Your task to perform on an android device: toggle improve location accuracy Image 0: 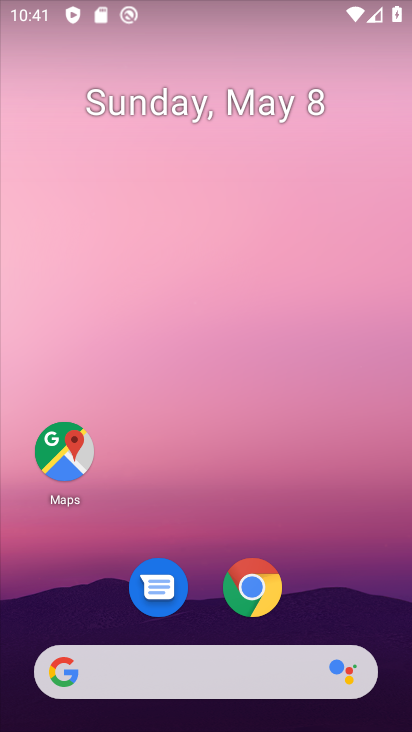
Step 0: drag from (351, 584) to (183, 41)
Your task to perform on an android device: toggle improve location accuracy Image 1: 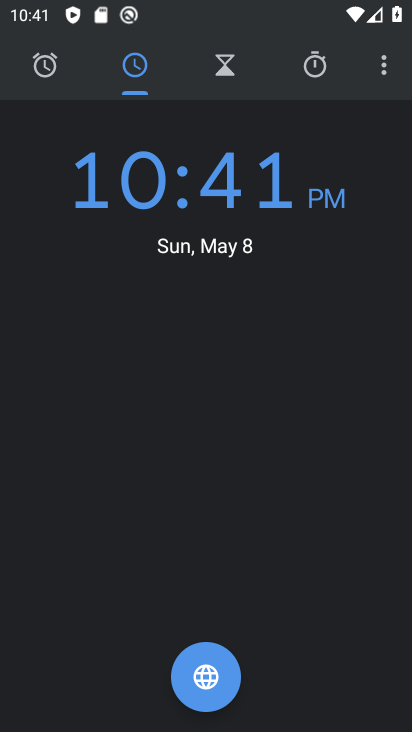
Step 1: click (391, 59)
Your task to perform on an android device: toggle improve location accuracy Image 2: 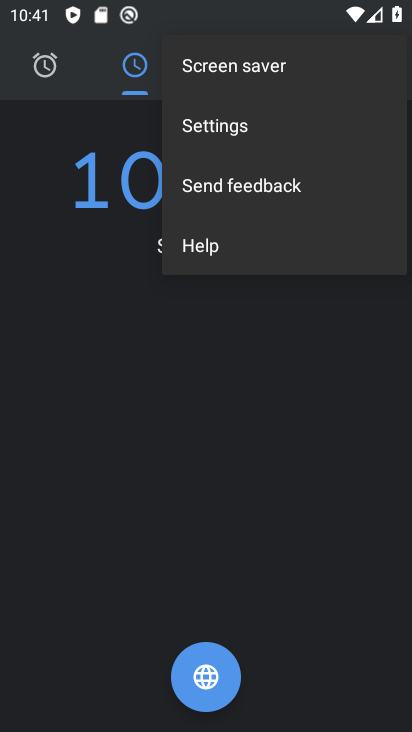
Step 2: click (232, 120)
Your task to perform on an android device: toggle improve location accuracy Image 3: 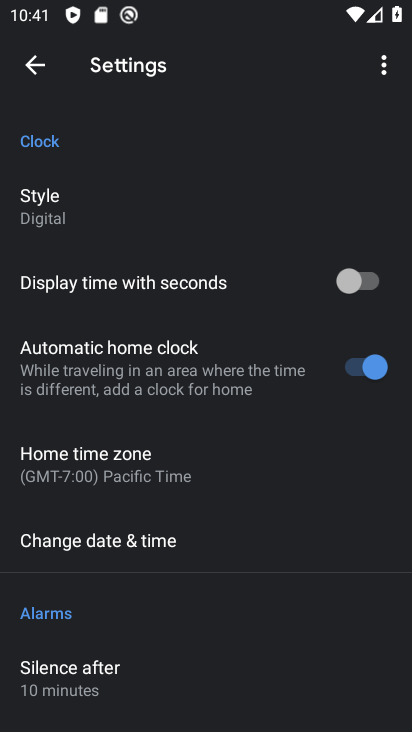
Step 3: press home button
Your task to perform on an android device: toggle improve location accuracy Image 4: 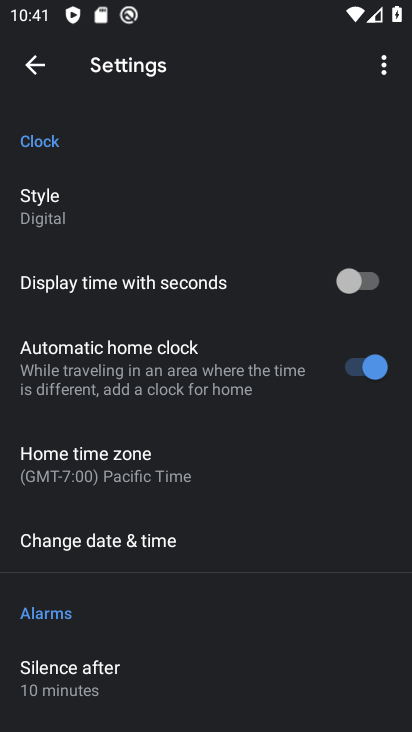
Step 4: press home button
Your task to perform on an android device: toggle improve location accuracy Image 5: 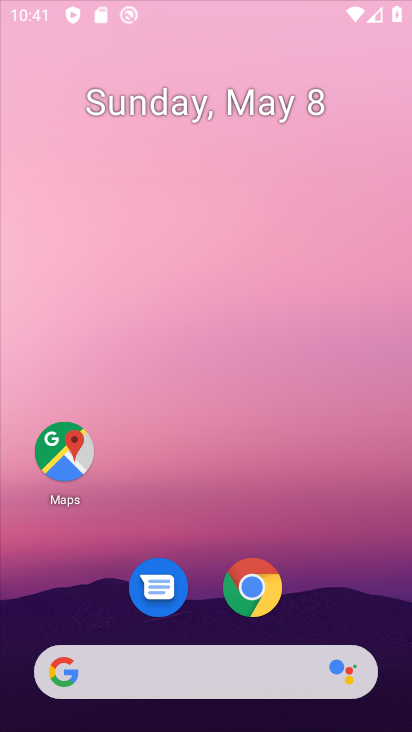
Step 5: press home button
Your task to perform on an android device: toggle improve location accuracy Image 6: 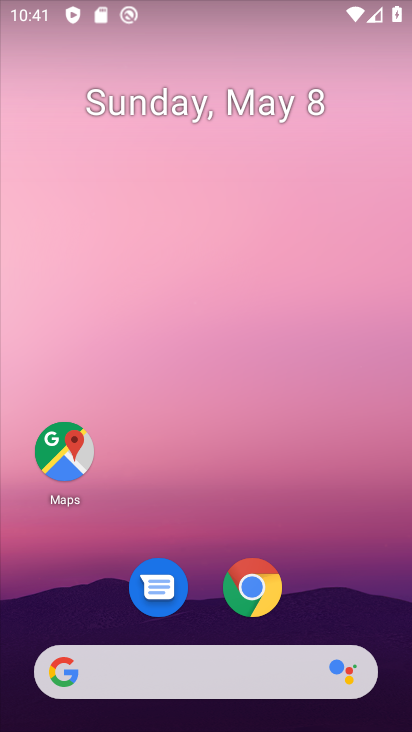
Step 6: drag from (284, 463) to (89, 1)
Your task to perform on an android device: toggle improve location accuracy Image 7: 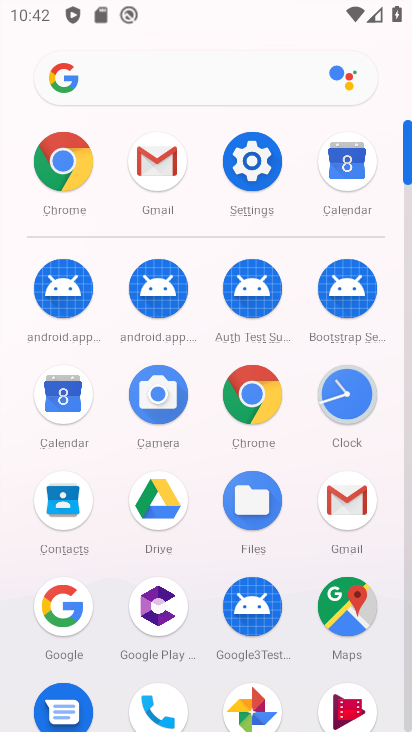
Step 7: click (248, 169)
Your task to perform on an android device: toggle improve location accuracy Image 8: 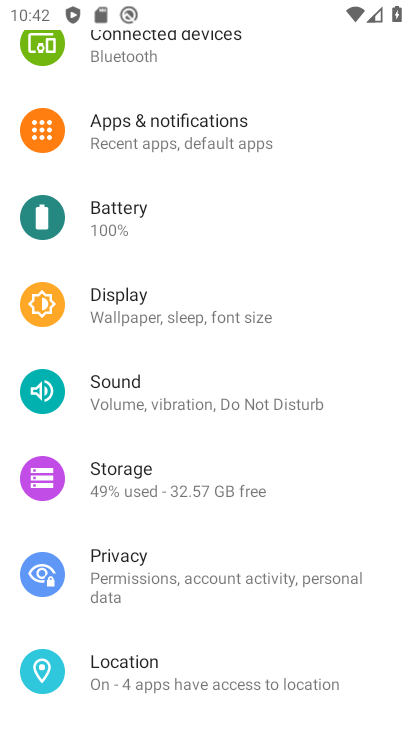
Step 8: click (122, 672)
Your task to perform on an android device: toggle improve location accuracy Image 9: 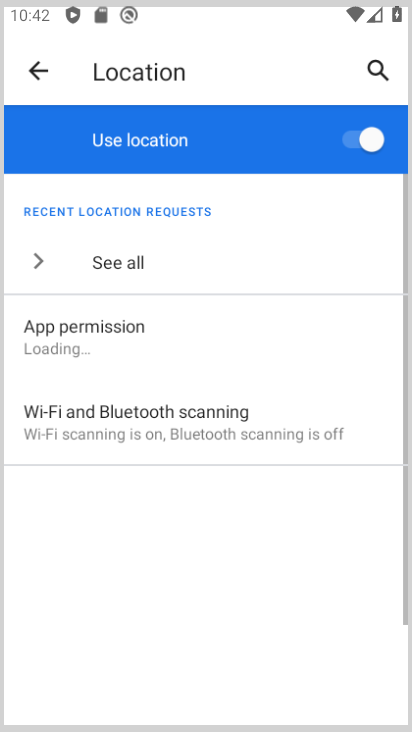
Step 9: click (120, 674)
Your task to perform on an android device: toggle improve location accuracy Image 10: 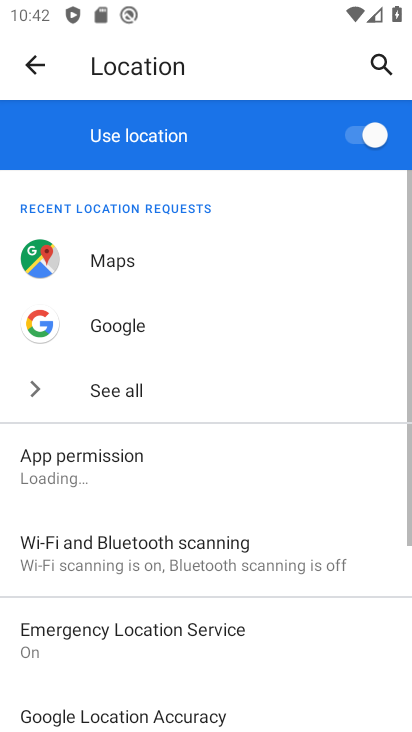
Step 10: drag from (188, 579) to (81, 147)
Your task to perform on an android device: toggle improve location accuracy Image 11: 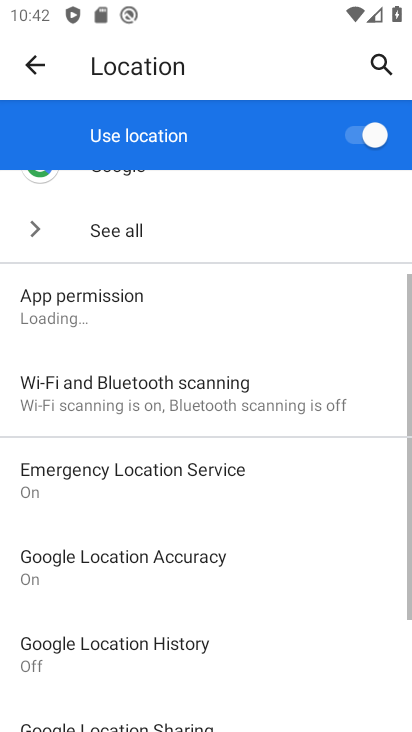
Step 11: drag from (178, 513) to (150, 235)
Your task to perform on an android device: toggle improve location accuracy Image 12: 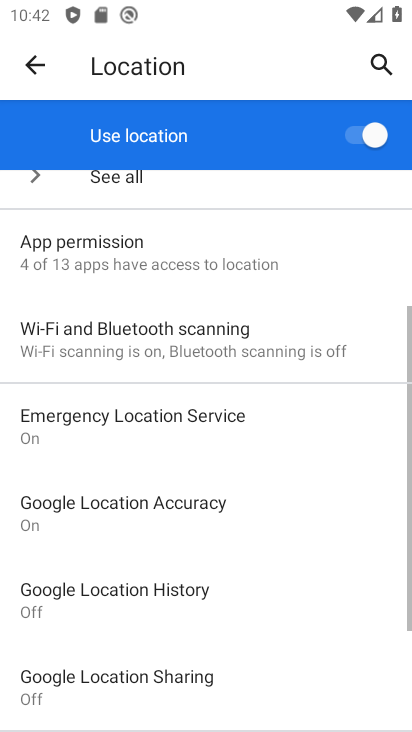
Step 12: click (120, 505)
Your task to perform on an android device: toggle improve location accuracy Image 13: 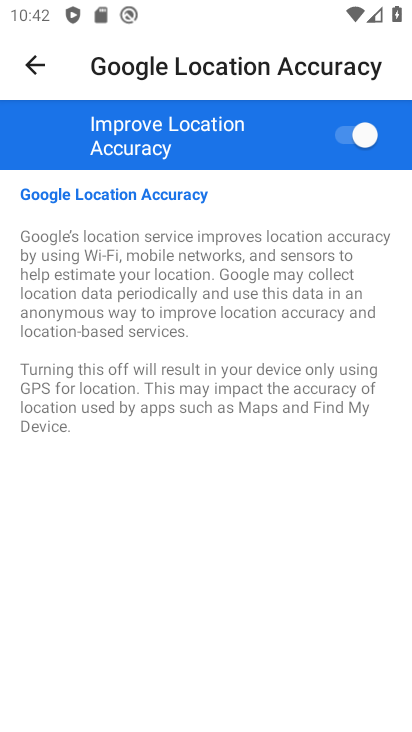
Step 13: click (357, 129)
Your task to perform on an android device: toggle improve location accuracy Image 14: 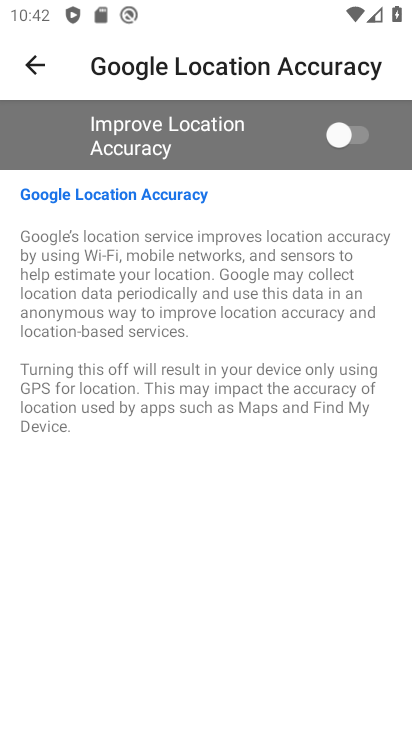
Step 14: task complete